Your task to perform on an android device: Open network settings Image 0: 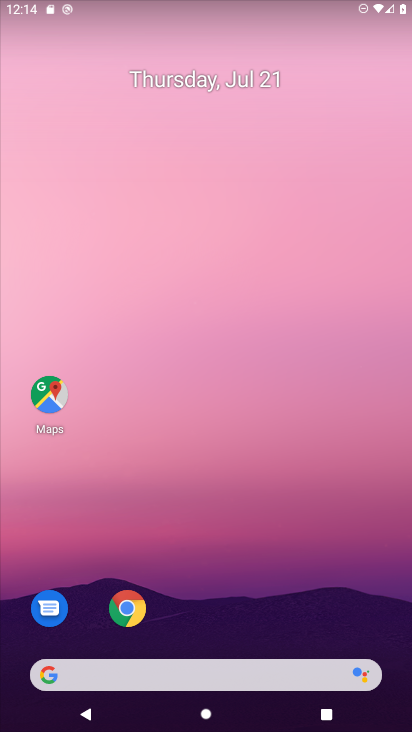
Step 0: press home button
Your task to perform on an android device: Open network settings Image 1: 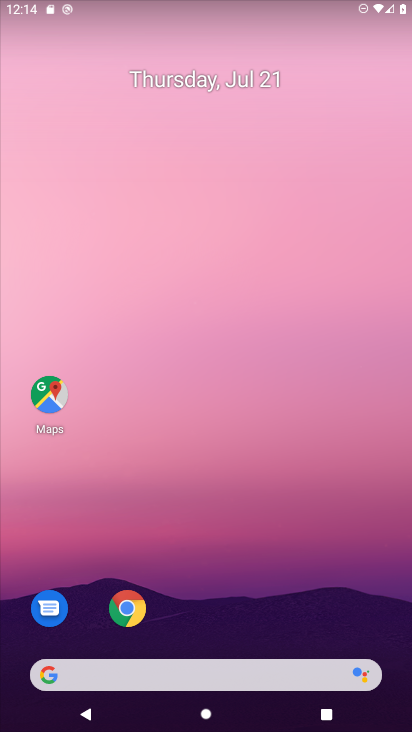
Step 1: drag from (234, 502) to (215, 95)
Your task to perform on an android device: Open network settings Image 2: 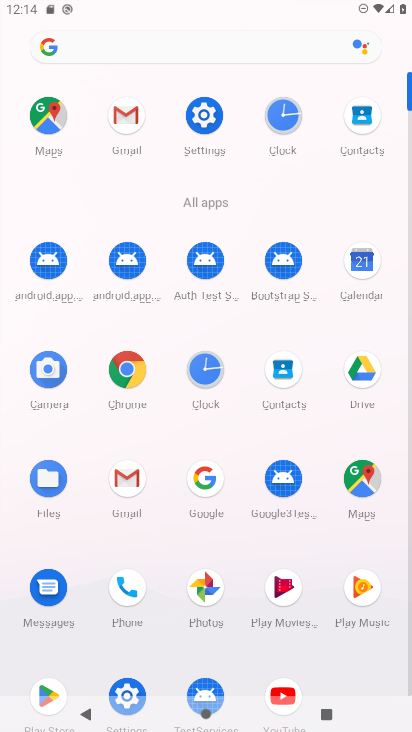
Step 2: click (202, 121)
Your task to perform on an android device: Open network settings Image 3: 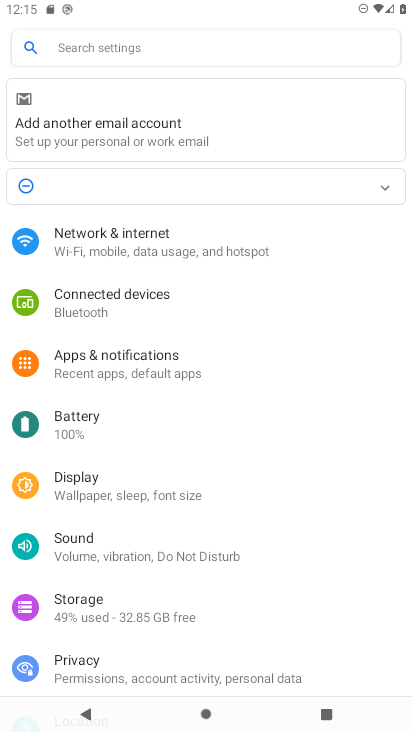
Step 3: drag from (123, 450) to (97, 155)
Your task to perform on an android device: Open network settings Image 4: 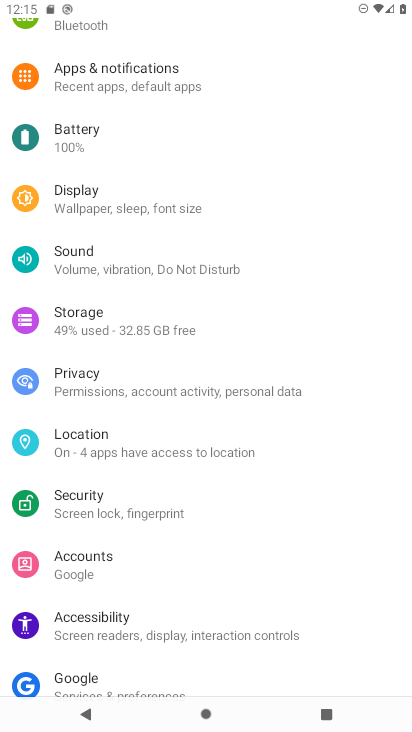
Step 4: drag from (92, 104) to (125, 385)
Your task to perform on an android device: Open network settings Image 5: 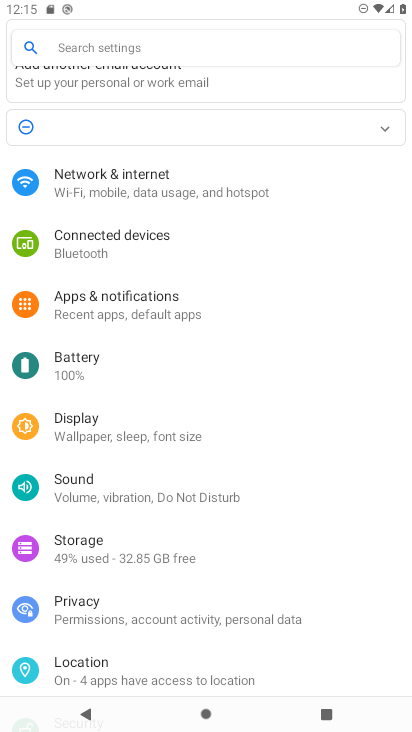
Step 5: click (125, 184)
Your task to perform on an android device: Open network settings Image 6: 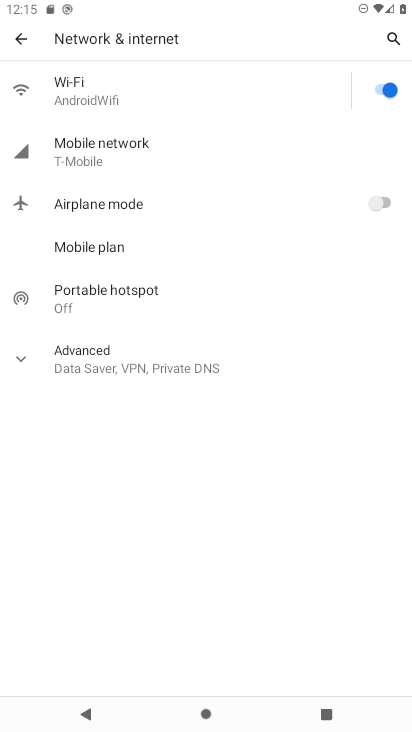
Step 6: click (125, 157)
Your task to perform on an android device: Open network settings Image 7: 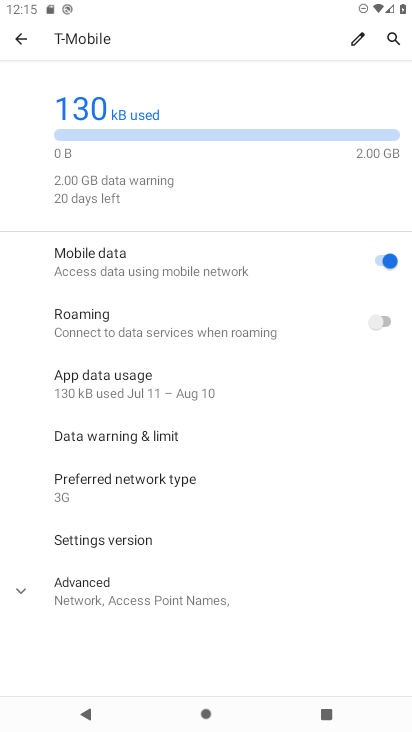
Step 7: task complete